Your task to perform on an android device: Open the web browser Image 0: 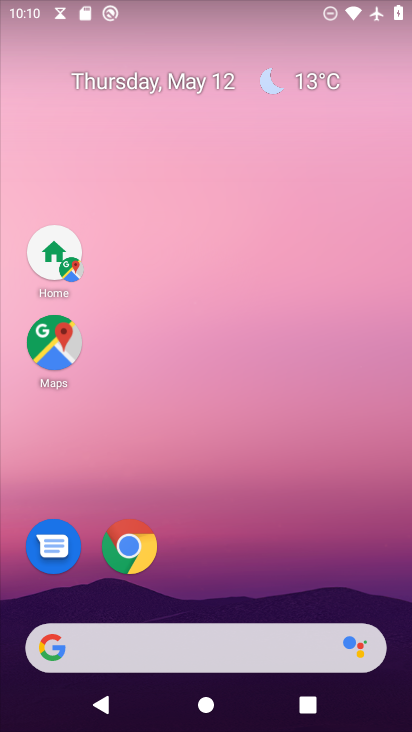
Step 0: click (139, 558)
Your task to perform on an android device: Open the web browser Image 1: 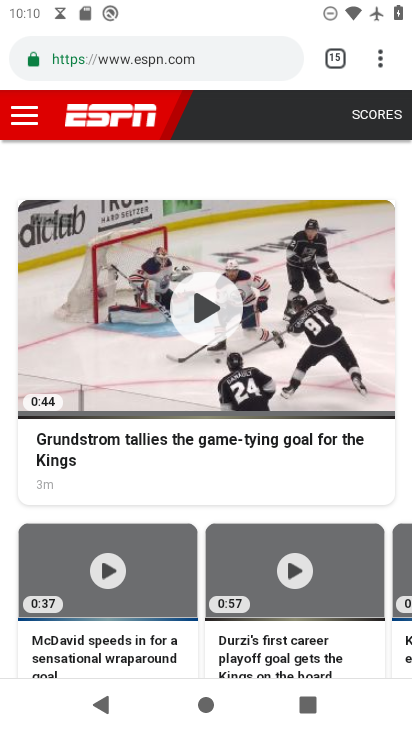
Step 1: task complete